Your task to perform on an android device: check out phone information Image 0: 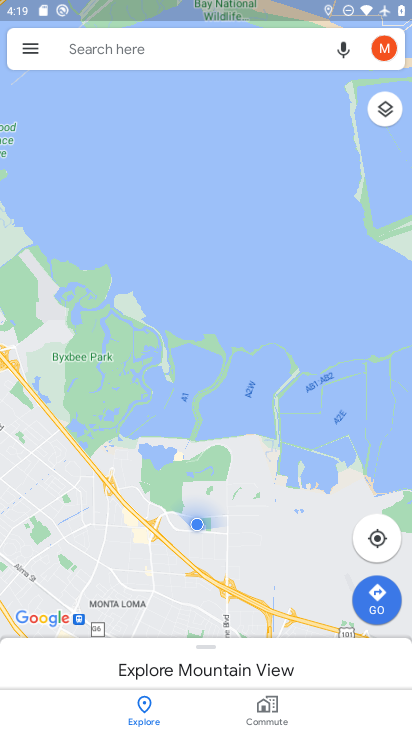
Step 0: press home button
Your task to perform on an android device: check out phone information Image 1: 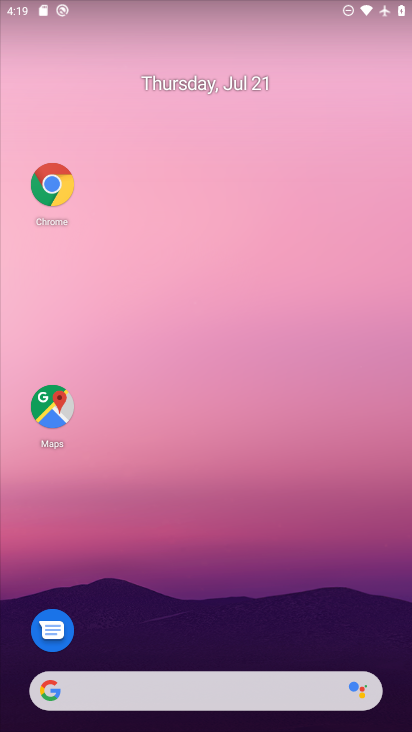
Step 1: drag from (214, 657) to (126, 99)
Your task to perform on an android device: check out phone information Image 2: 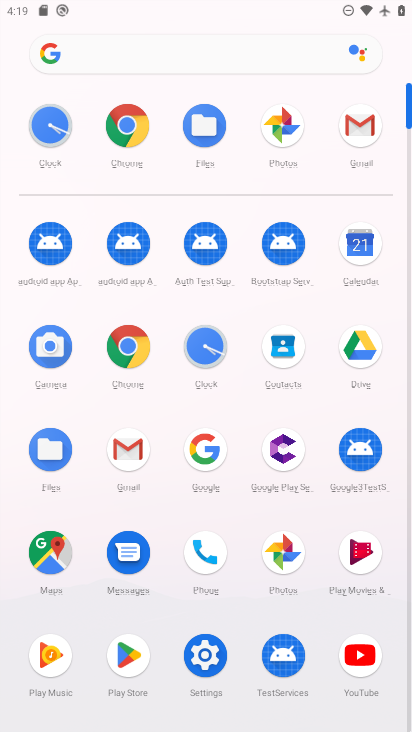
Step 2: click (226, 652)
Your task to perform on an android device: check out phone information Image 3: 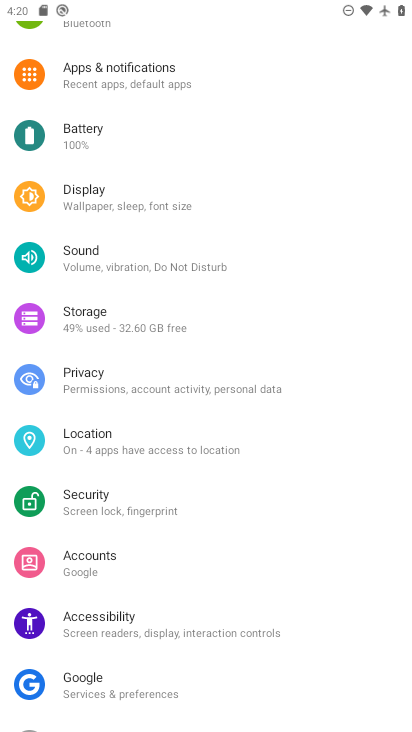
Step 3: drag from (129, 679) to (241, 20)
Your task to perform on an android device: check out phone information Image 4: 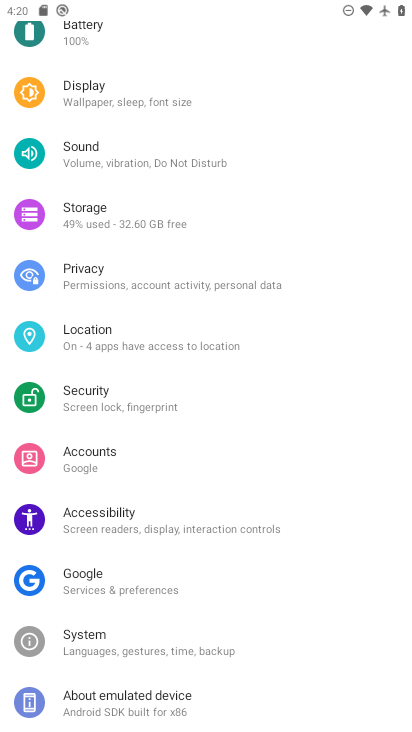
Step 4: click (139, 696)
Your task to perform on an android device: check out phone information Image 5: 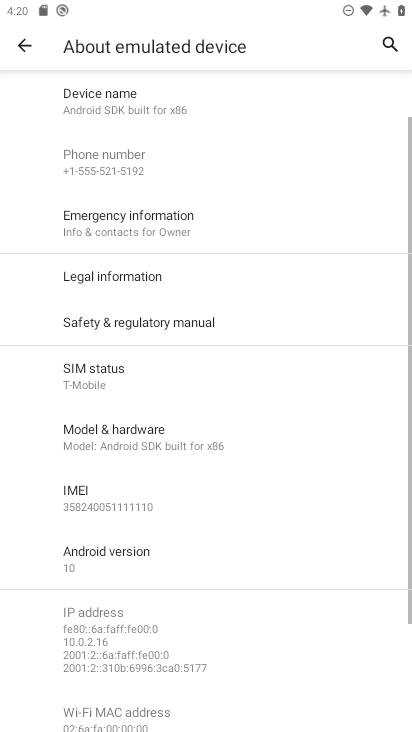
Step 5: task complete